Your task to perform on an android device: Is it going to rain today? Image 0: 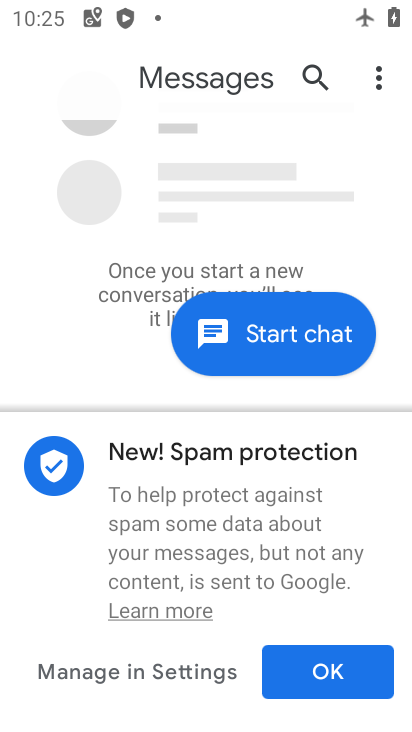
Step 0: press home button
Your task to perform on an android device: Is it going to rain today? Image 1: 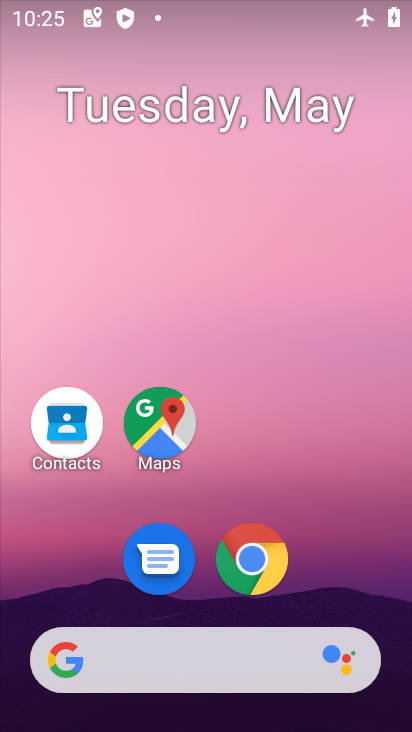
Step 1: click (224, 675)
Your task to perform on an android device: Is it going to rain today? Image 2: 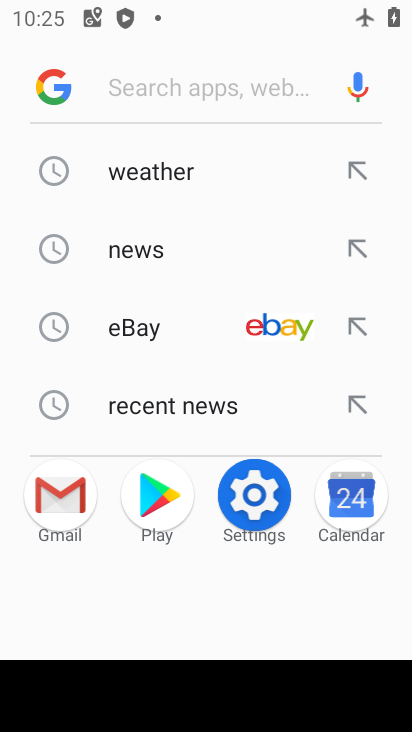
Step 2: click (157, 189)
Your task to perform on an android device: Is it going to rain today? Image 3: 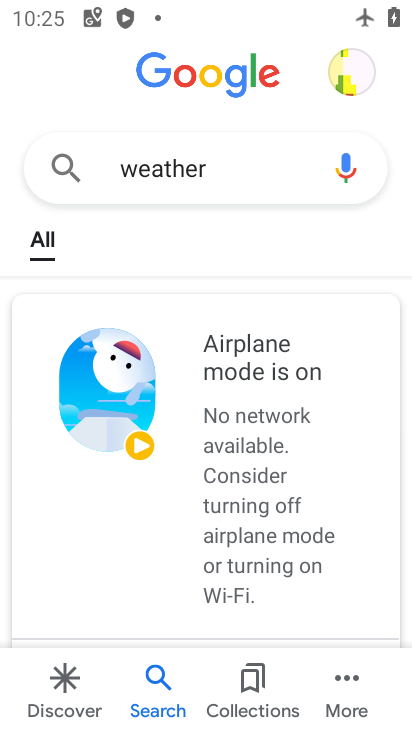
Step 3: task complete